Your task to perform on an android device: delete a single message in the gmail app Image 0: 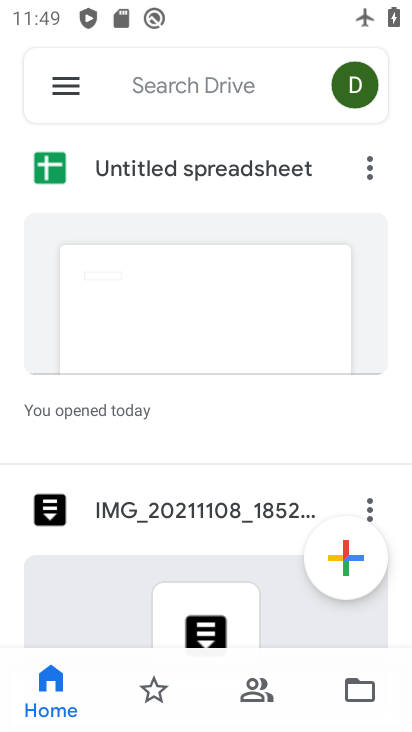
Step 0: press home button
Your task to perform on an android device: delete a single message in the gmail app Image 1: 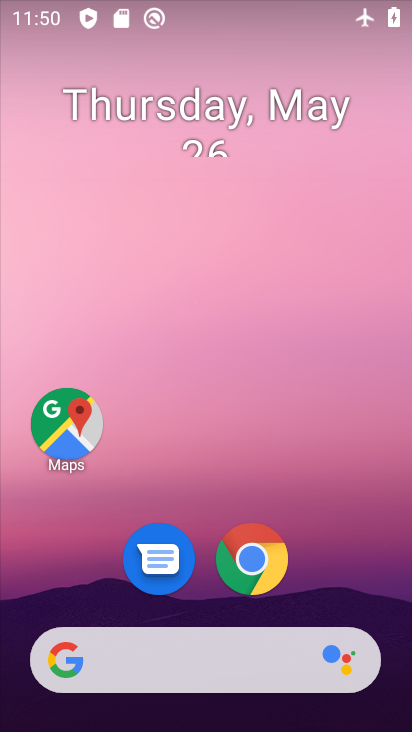
Step 1: drag from (321, 574) to (269, 1)
Your task to perform on an android device: delete a single message in the gmail app Image 2: 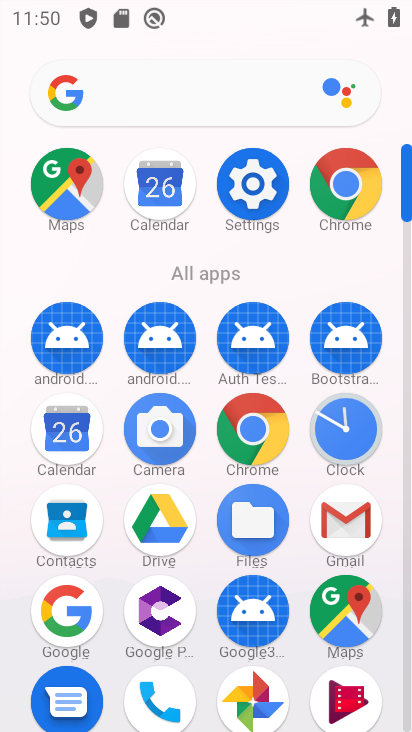
Step 2: click (331, 516)
Your task to perform on an android device: delete a single message in the gmail app Image 3: 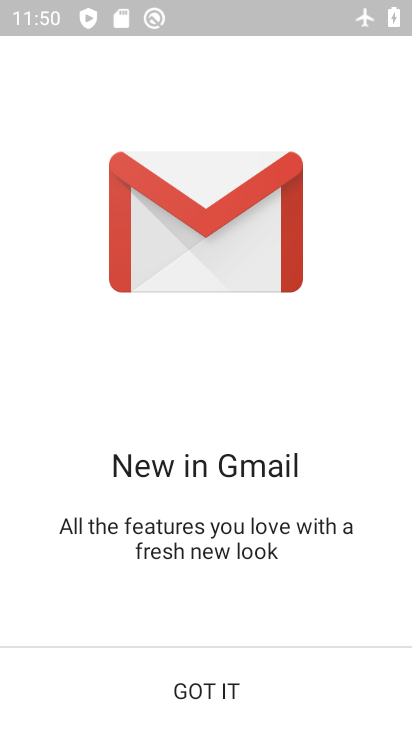
Step 3: click (188, 690)
Your task to perform on an android device: delete a single message in the gmail app Image 4: 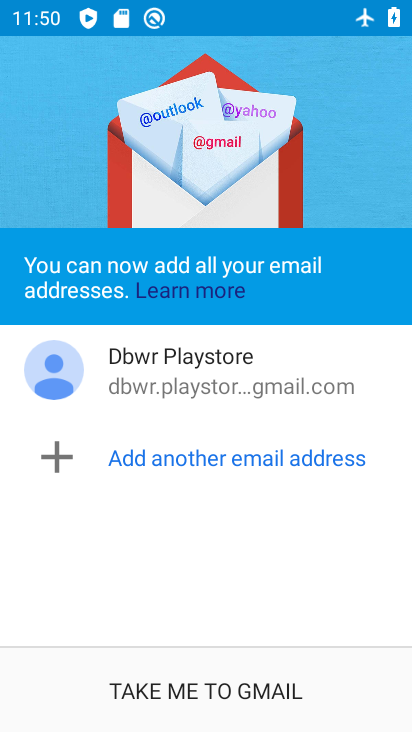
Step 4: click (191, 684)
Your task to perform on an android device: delete a single message in the gmail app Image 5: 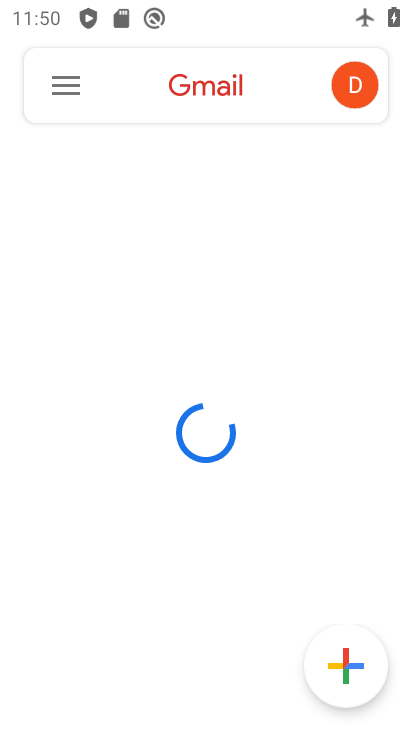
Step 5: drag from (235, 11) to (200, 537)
Your task to perform on an android device: delete a single message in the gmail app Image 6: 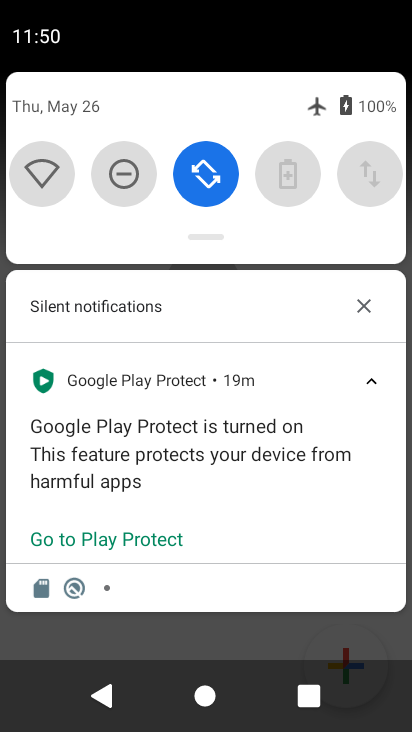
Step 6: drag from (323, 216) to (279, 569)
Your task to perform on an android device: delete a single message in the gmail app Image 7: 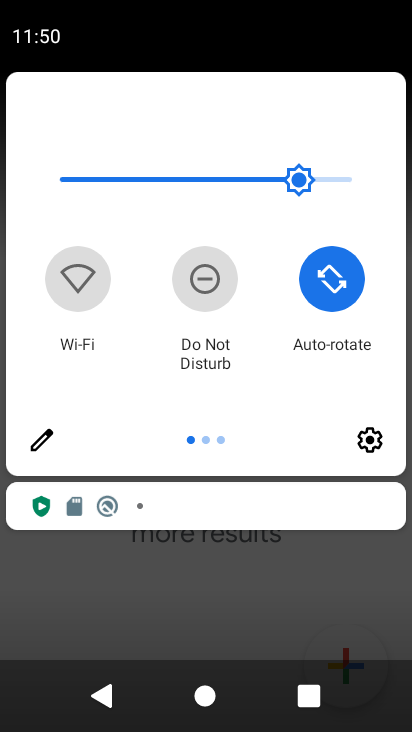
Step 7: drag from (353, 357) to (33, 354)
Your task to perform on an android device: delete a single message in the gmail app Image 8: 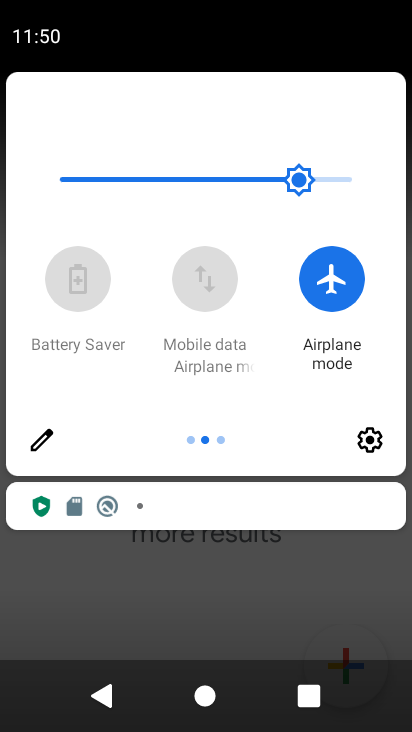
Step 8: click (328, 267)
Your task to perform on an android device: delete a single message in the gmail app Image 9: 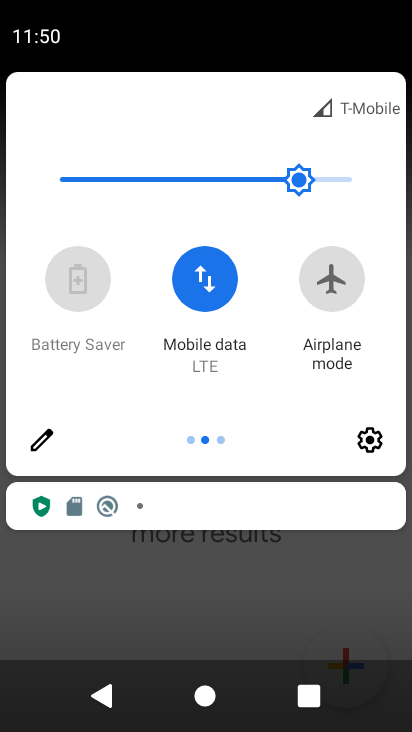
Step 9: drag from (273, 629) to (285, 0)
Your task to perform on an android device: delete a single message in the gmail app Image 10: 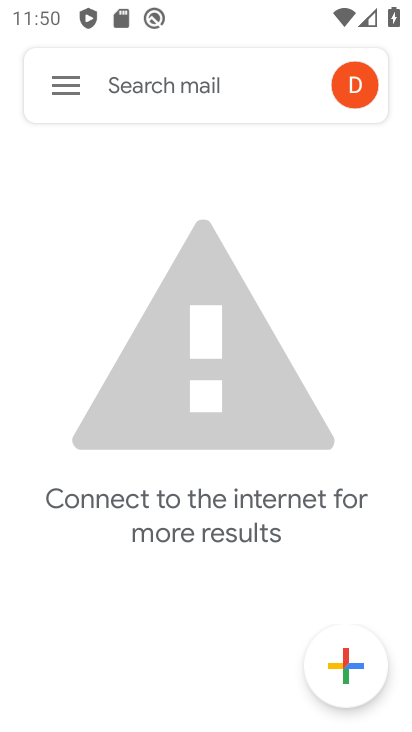
Step 10: click (48, 76)
Your task to perform on an android device: delete a single message in the gmail app Image 11: 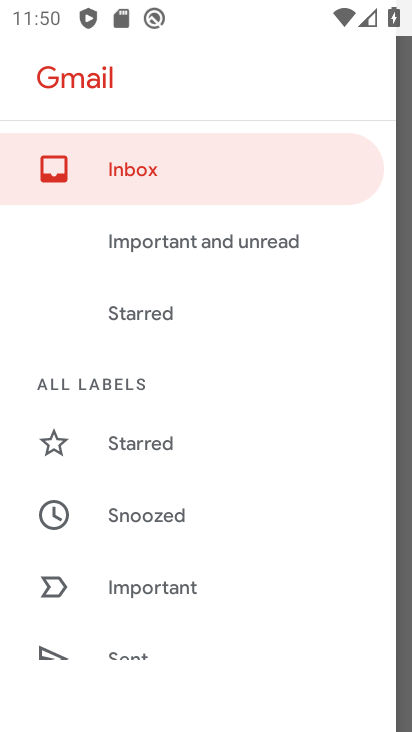
Step 11: drag from (257, 553) to (260, 101)
Your task to perform on an android device: delete a single message in the gmail app Image 12: 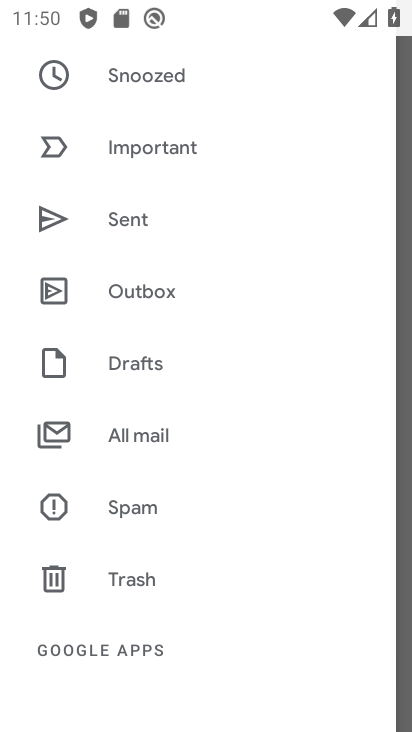
Step 12: drag from (206, 488) to (210, 183)
Your task to perform on an android device: delete a single message in the gmail app Image 13: 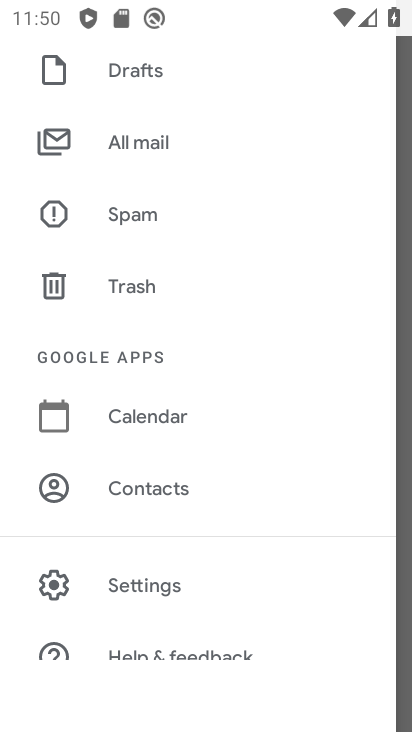
Step 13: click (165, 137)
Your task to perform on an android device: delete a single message in the gmail app Image 14: 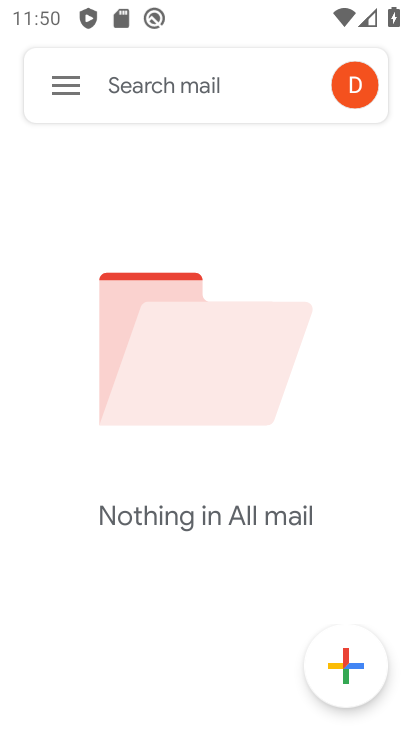
Step 14: task complete